Your task to perform on an android device: Open settings on Google Maps Image 0: 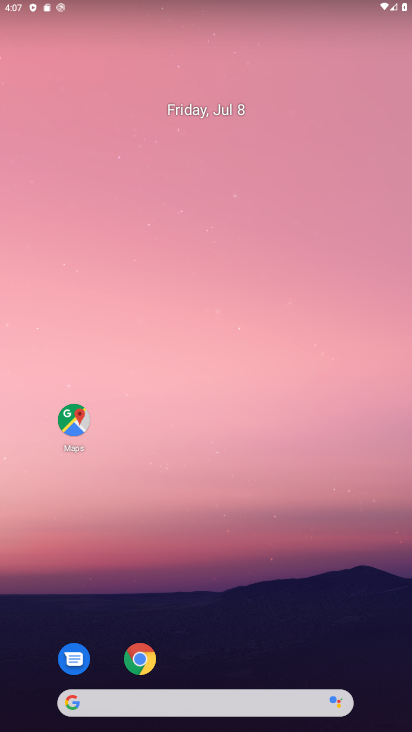
Step 0: drag from (247, 650) to (206, 59)
Your task to perform on an android device: Open settings on Google Maps Image 1: 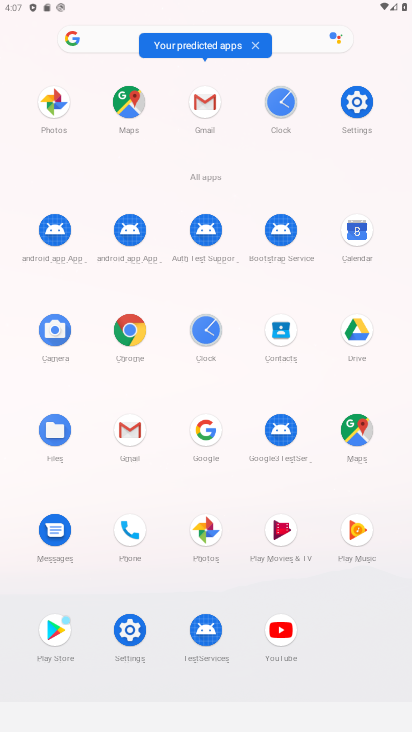
Step 1: click (354, 431)
Your task to perform on an android device: Open settings on Google Maps Image 2: 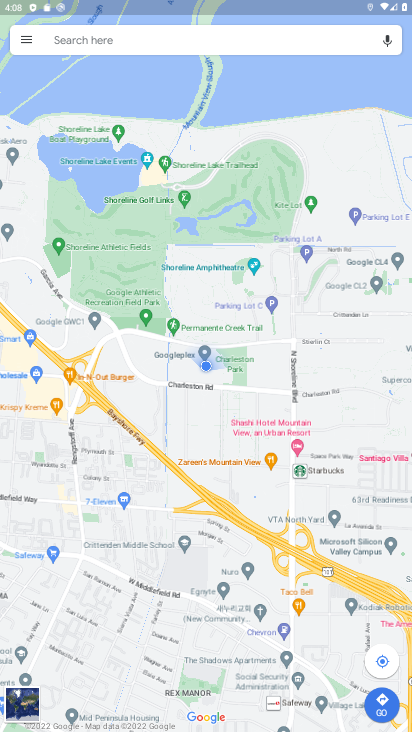
Step 2: click (25, 40)
Your task to perform on an android device: Open settings on Google Maps Image 3: 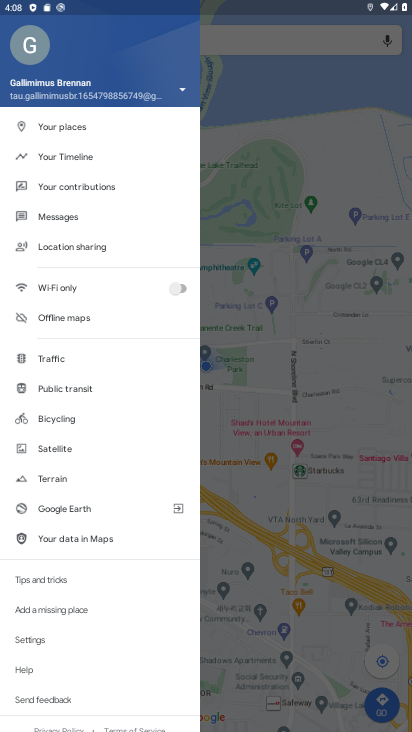
Step 3: click (15, 640)
Your task to perform on an android device: Open settings on Google Maps Image 4: 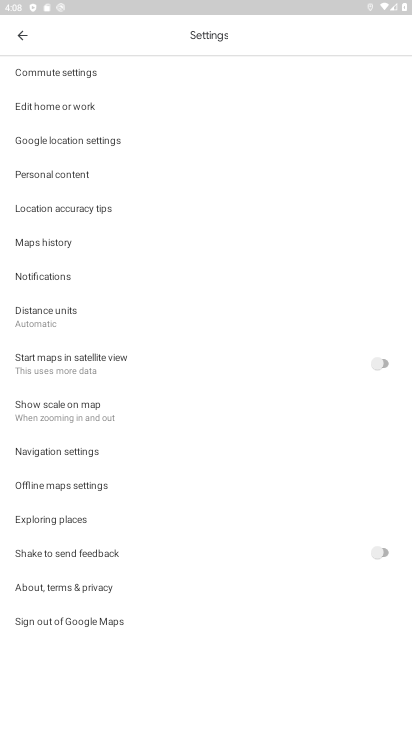
Step 4: task complete